Your task to perform on an android device: turn on the 24-hour format for clock Image 0: 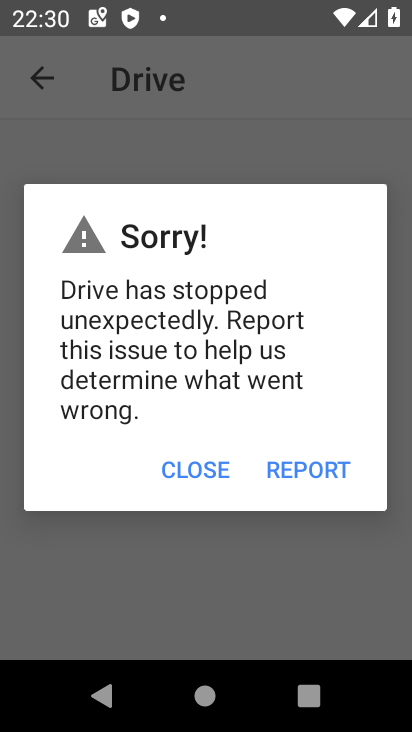
Step 0: press home button
Your task to perform on an android device: turn on the 24-hour format for clock Image 1: 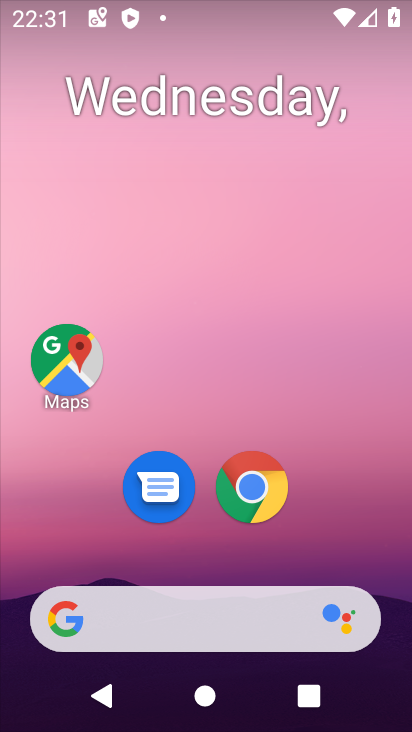
Step 1: click (17, 197)
Your task to perform on an android device: turn on the 24-hour format for clock Image 2: 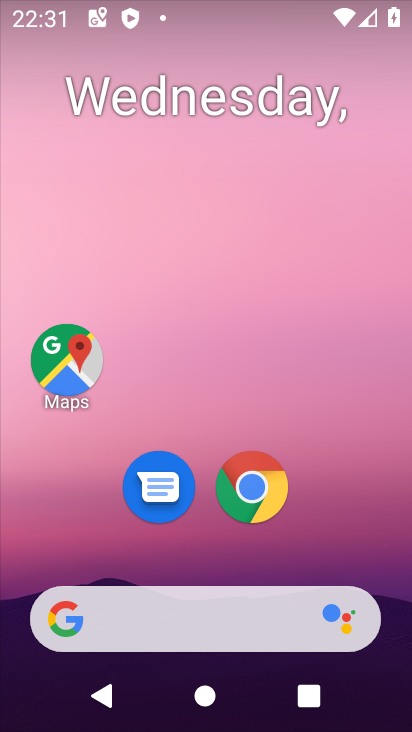
Step 2: drag from (270, 676) to (298, 48)
Your task to perform on an android device: turn on the 24-hour format for clock Image 3: 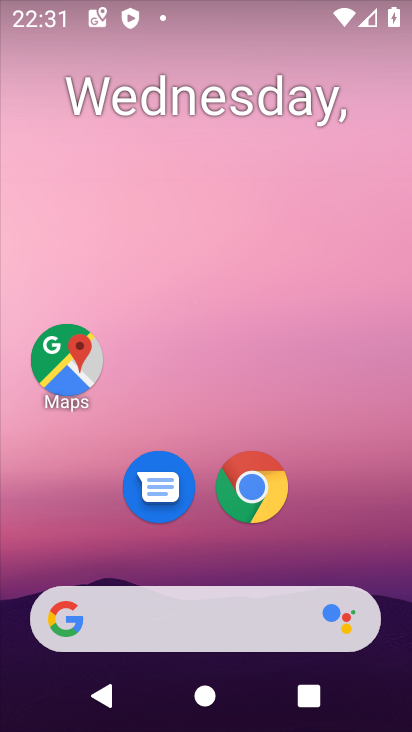
Step 3: drag from (254, 712) to (202, 47)
Your task to perform on an android device: turn on the 24-hour format for clock Image 4: 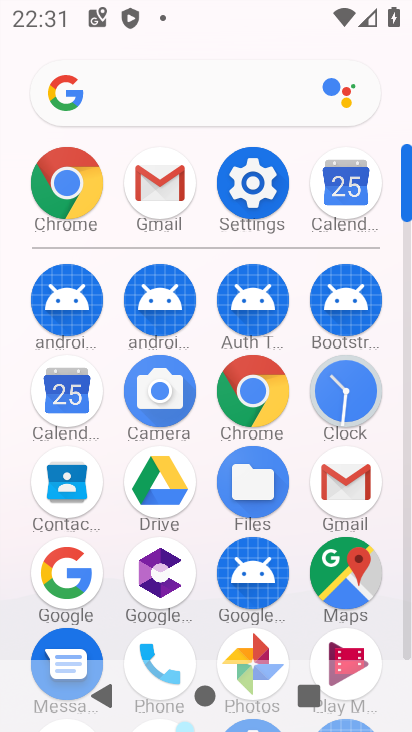
Step 4: click (332, 413)
Your task to perform on an android device: turn on the 24-hour format for clock Image 5: 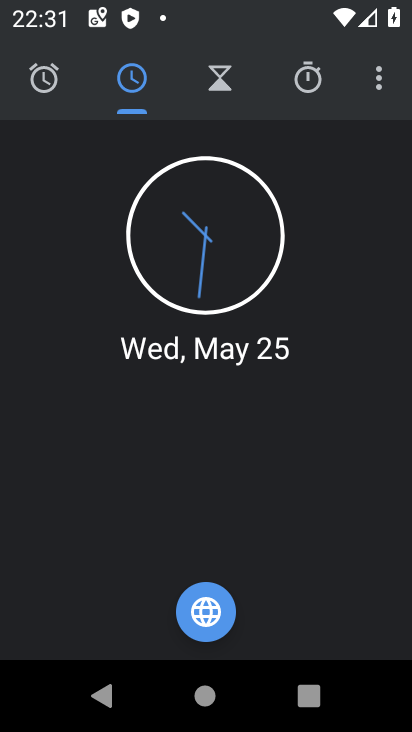
Step 5: click (382, 69)
Your task to perform on an android device: turn on the 24-hour format for clock Image 6: 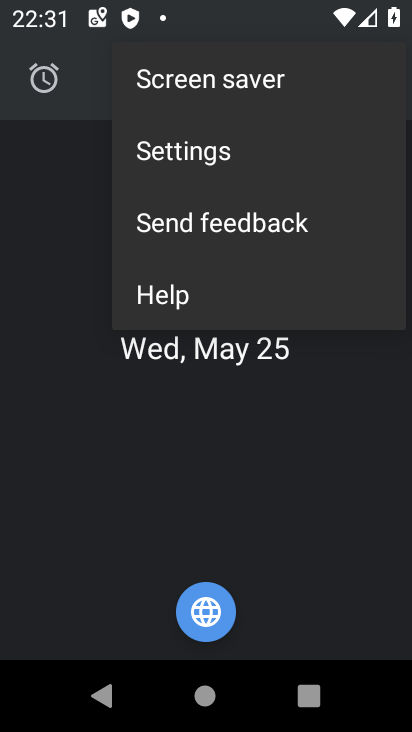
Step 6: click (319, 161)
Your task to perform on an android device: turn on the 24-hour format for clock Image 7: 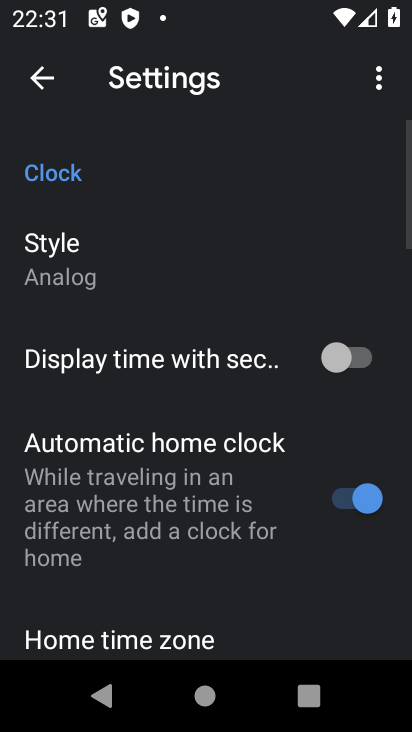
Step 7: drag from (206, 547) to (242, 6)
Your task to perform on an android device: turn on the 24-hour format for clock Image 8: 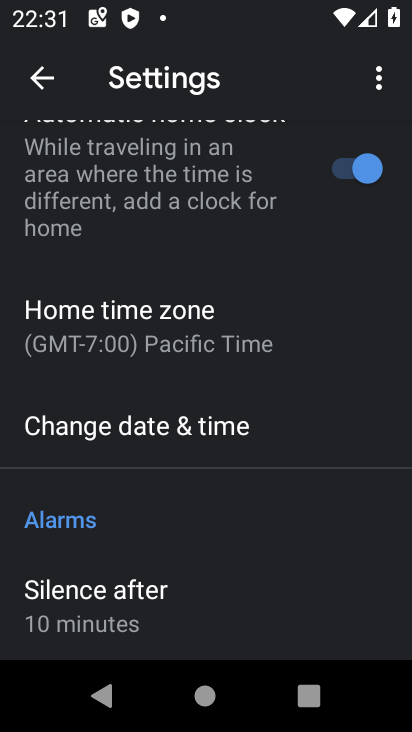
Step 8: click (247, 438)
Your task to perform on an android device: turn on the 24-hour format for clock Image 9: 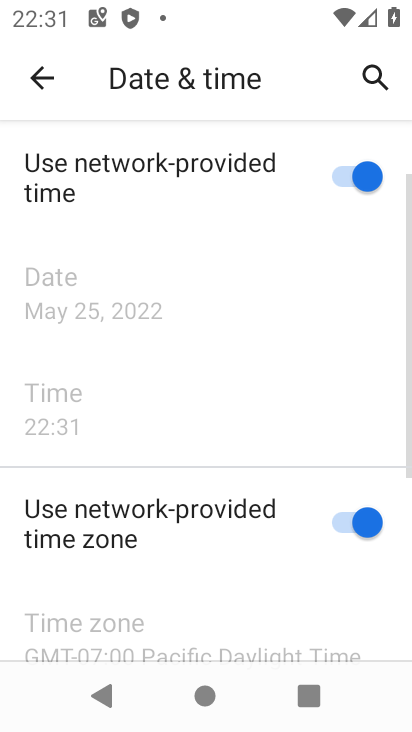
Step 9: task complete